Your task to perform on an android device: Go to sound settings Image 0: 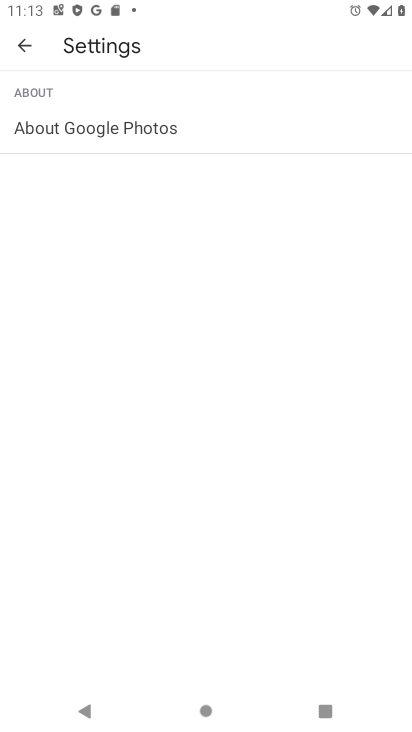
Step 0: press home button
Your task to perform on an android device: Go to sound settings Image 1: 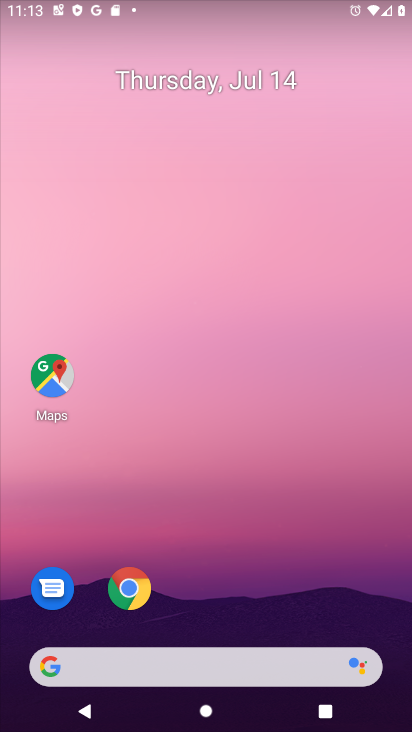
Step 1: drag from (332, 558) to (224, 14)
Your task to perform on an android device: Go to sound settings Image 2: 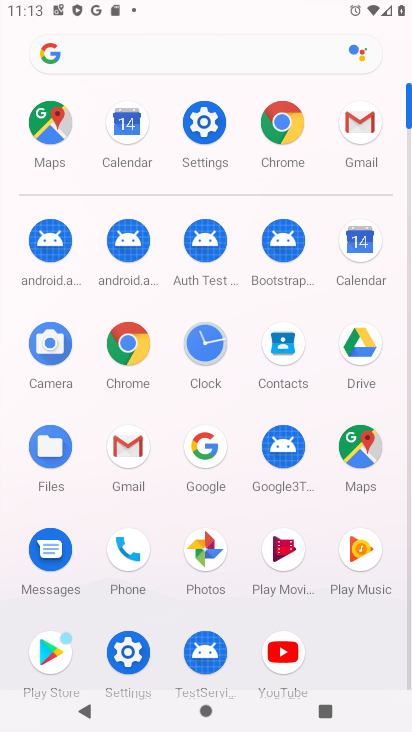
Step 2: click (196, 125)
Your task to perform on an android device: Go to sound settings Image 3: 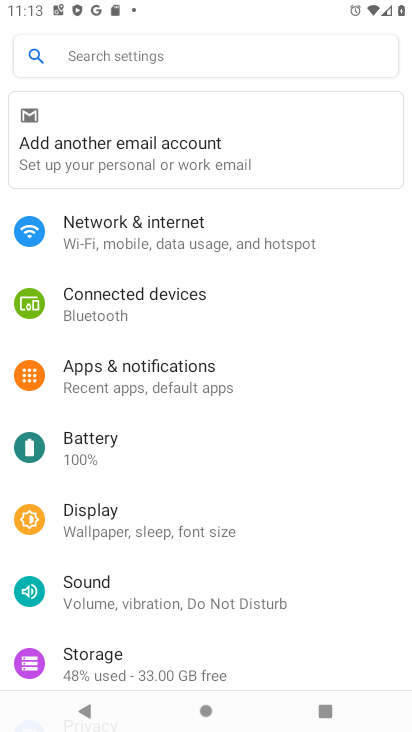
Step 3: click (128, 573)
Your task to perform on an android device: Go to sound settings Image 4: 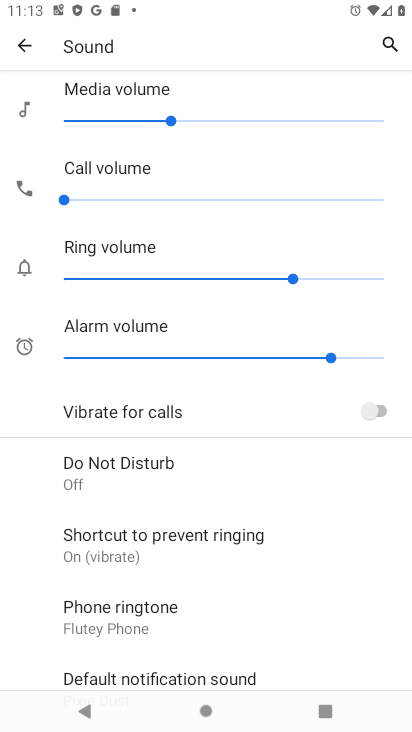
Step 4: task complete